Your task to perform on an android device: create a new album in the google photos Image 0: 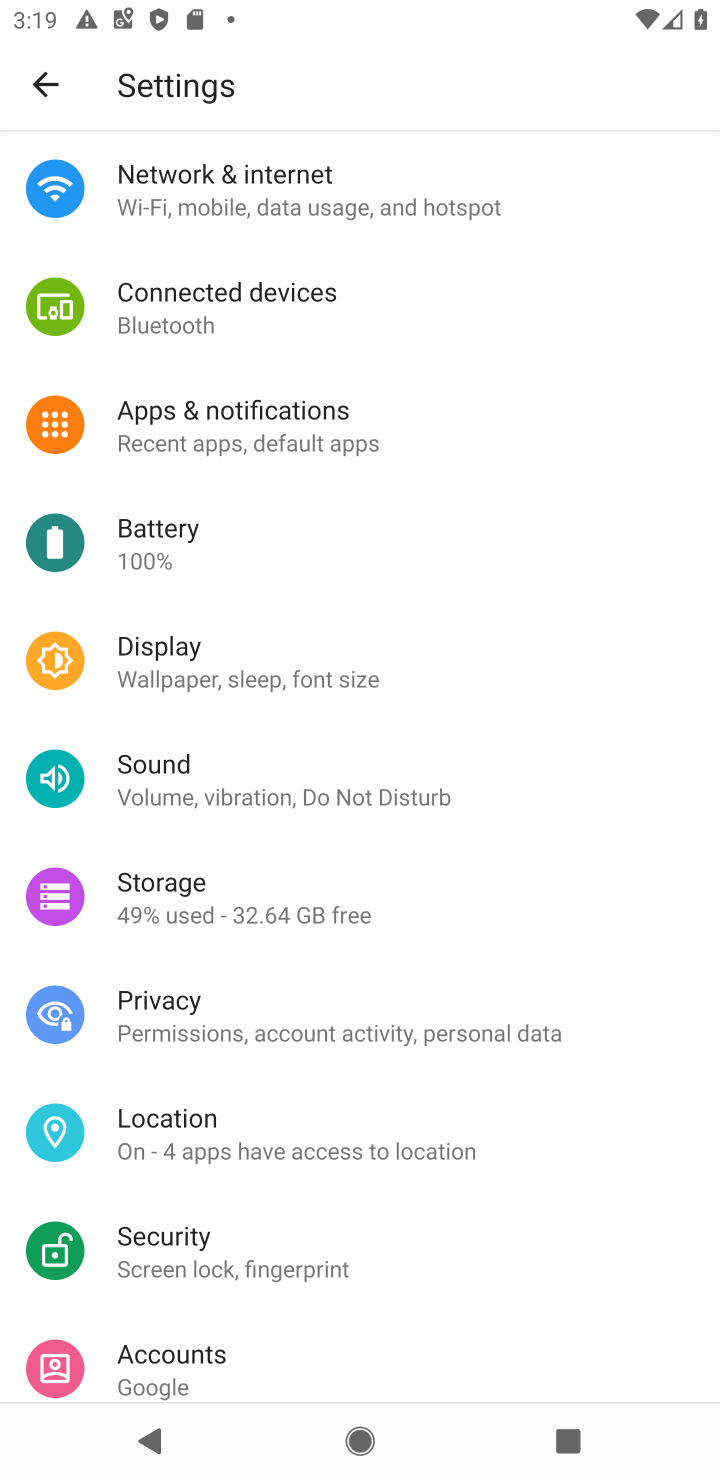
Step 0: press home button
Your task to perform on an android device: create a new album in the google photos Image 1: 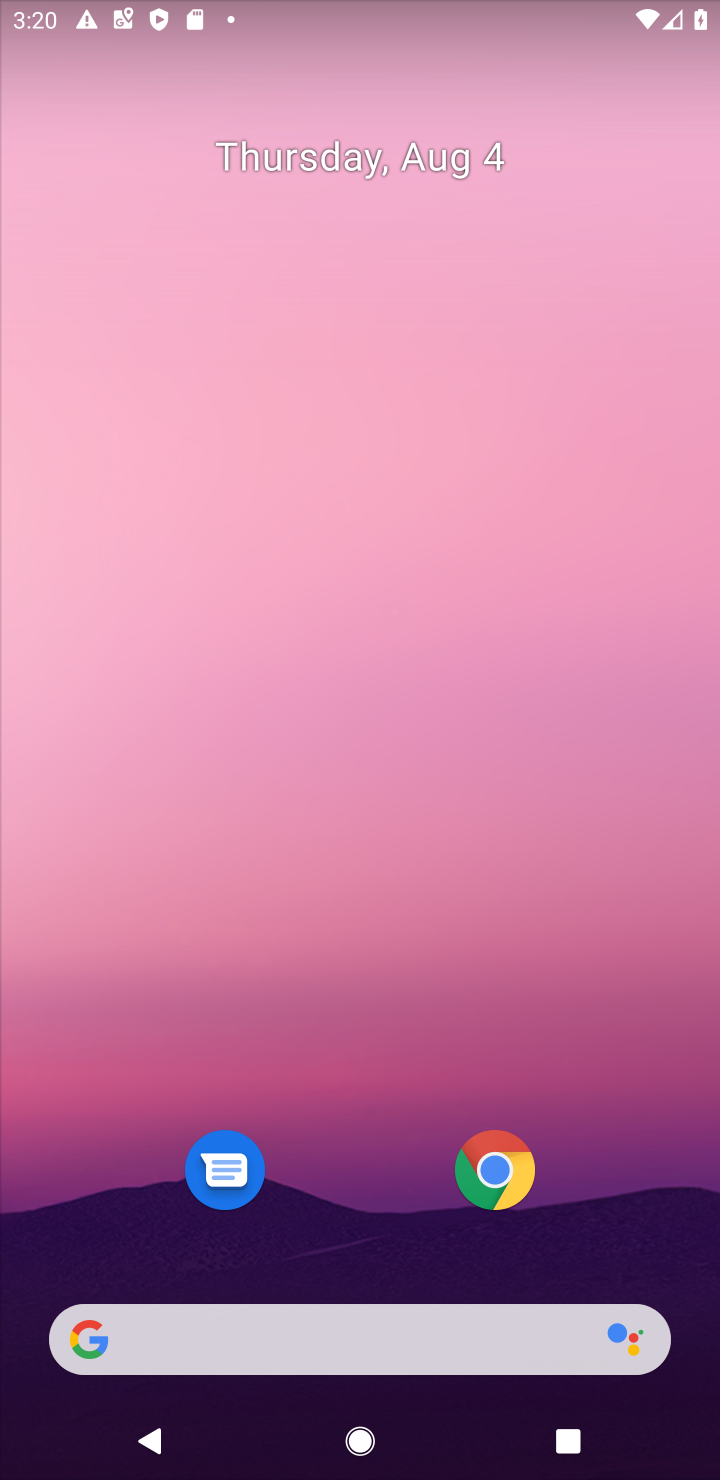
Step 1: drag from (674, 1228) to (545, 254)
Your task to perform on an android device: create a new album in the google photos Image 2: 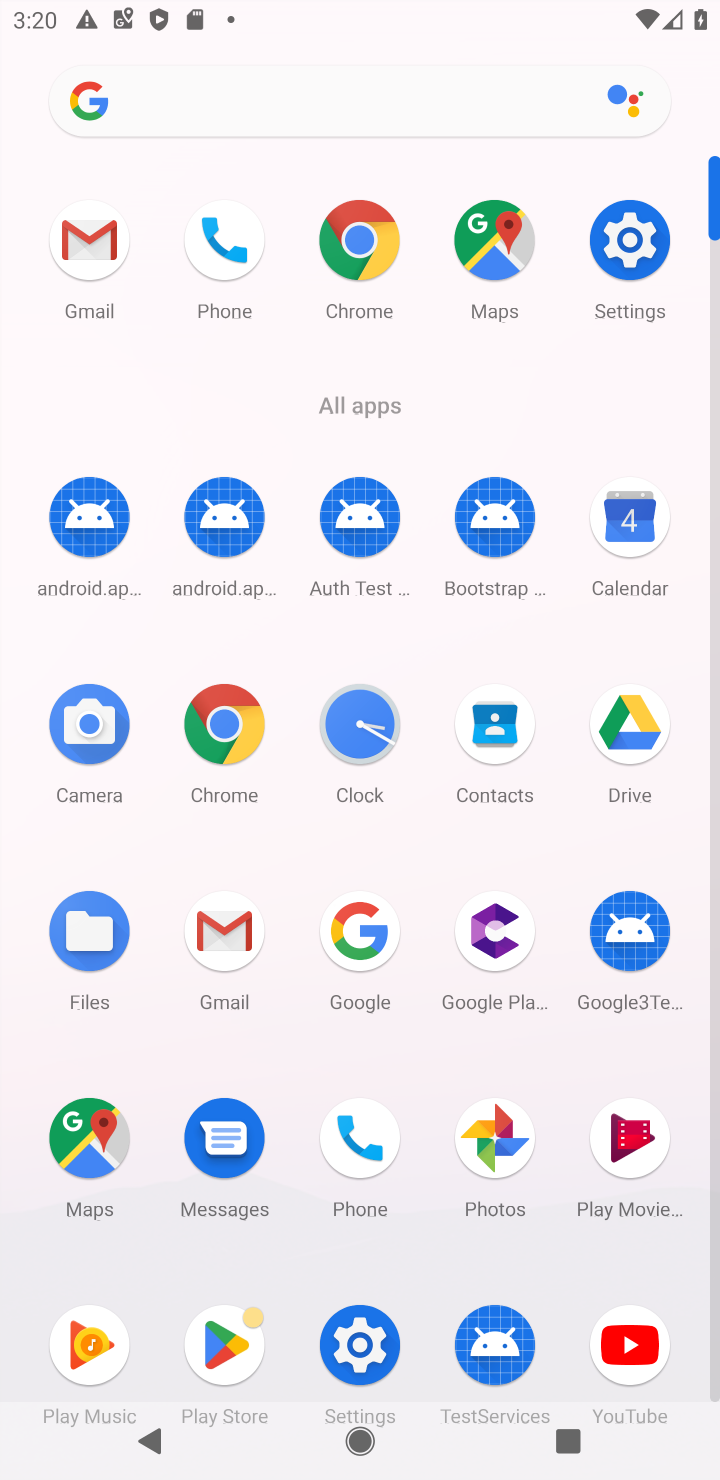
Step 2: click (496, 1146)
Your task to perform on an android device: create a new album in the google photos Image 3: 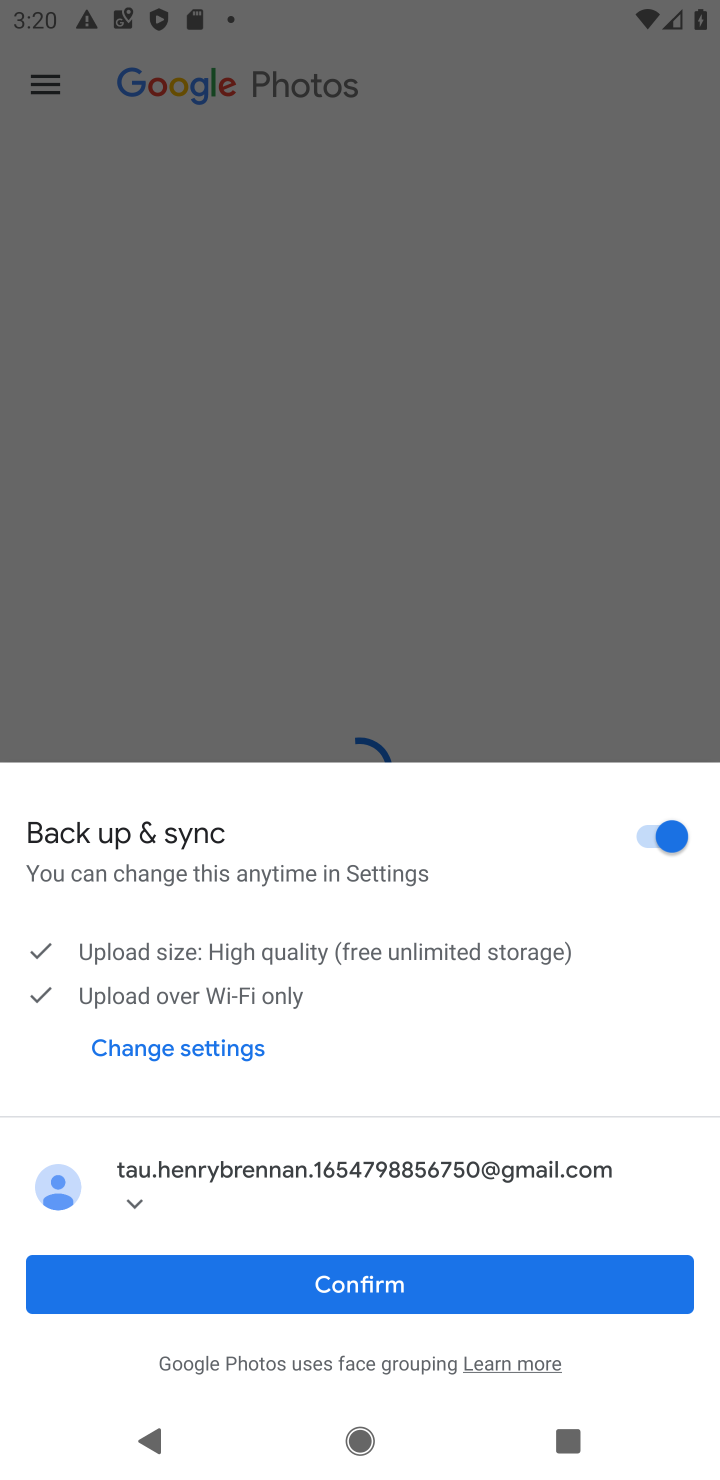
Step 3: click (359, 1294)
Your task to perform on an android device: create a new album in the google photos Image 4: 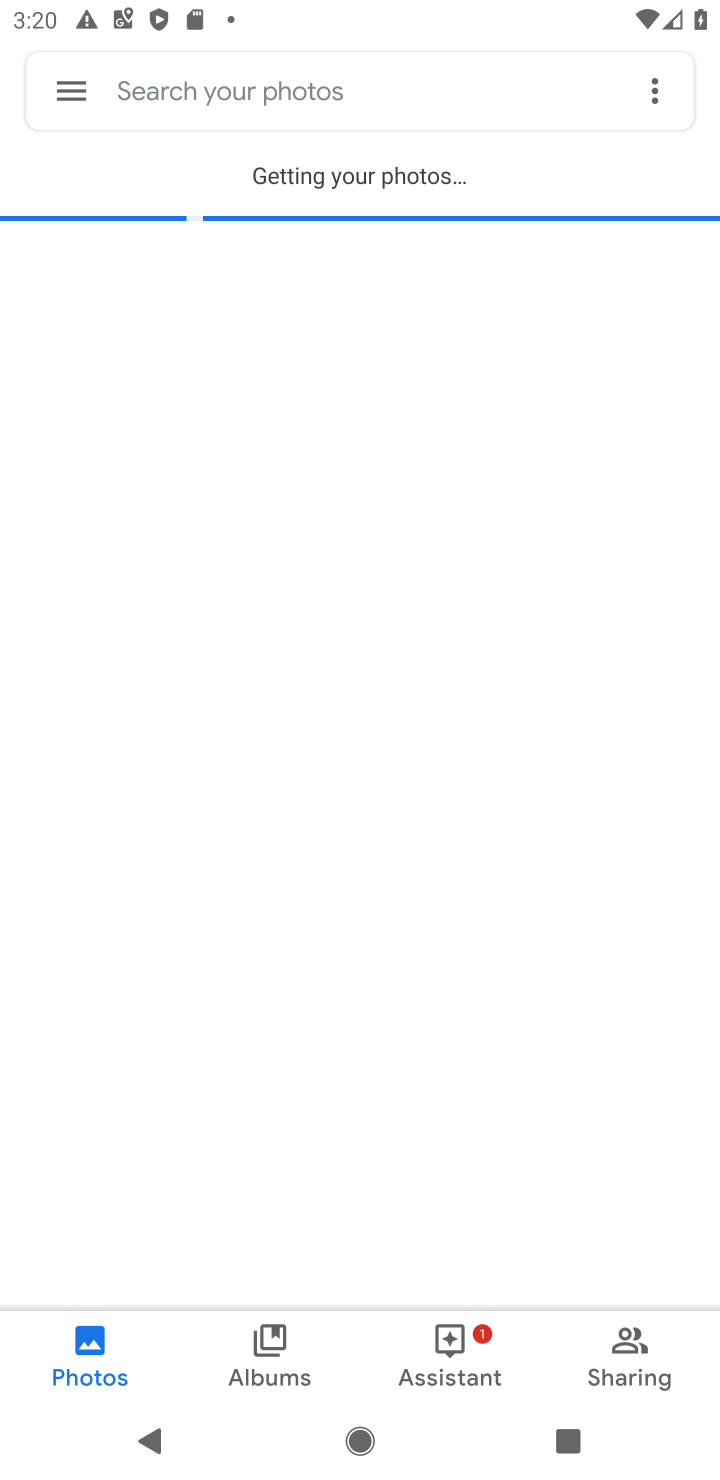
Step 4: click (266, 1367)
Your task to perform on an android device: create a new album in the google photos Image 5: 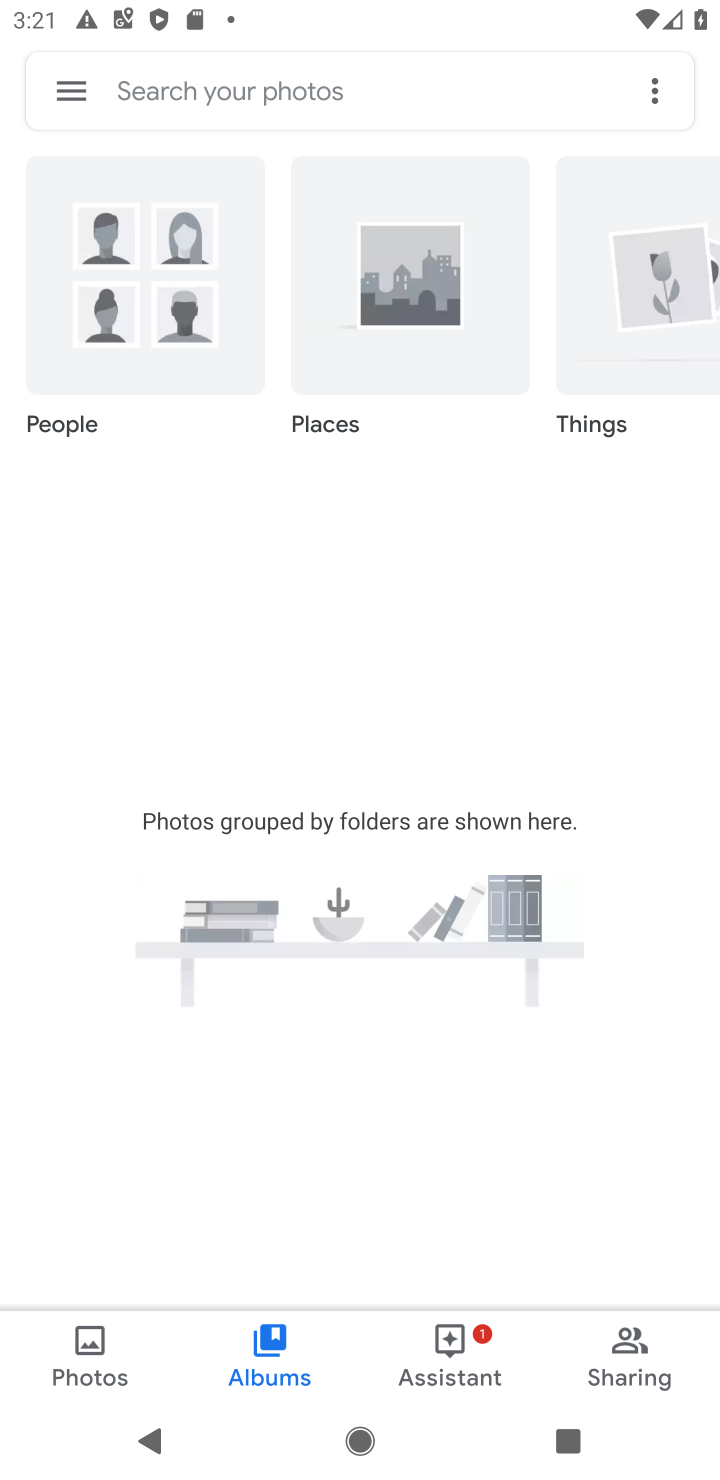
Step 5: task complete